Your task to perform on an android device: Go to CNN.com Image 0: 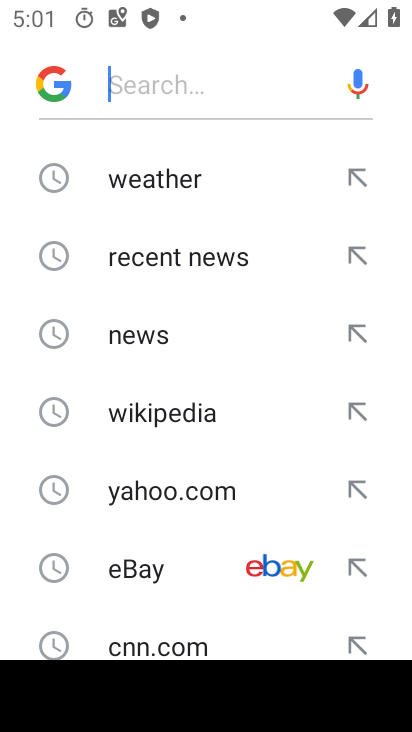
Step 0: press home button
Your task to perform on an android device: Go to CNN.com Image 1: 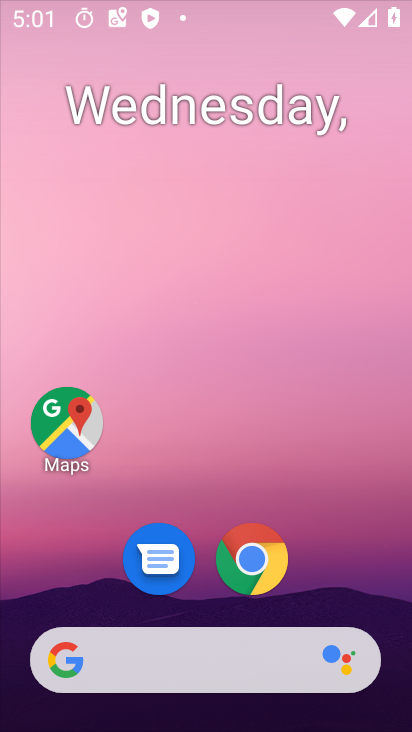
Step 1: click (263, 553)
Your task to perform on an android device: Go to CNN.com Image 2: 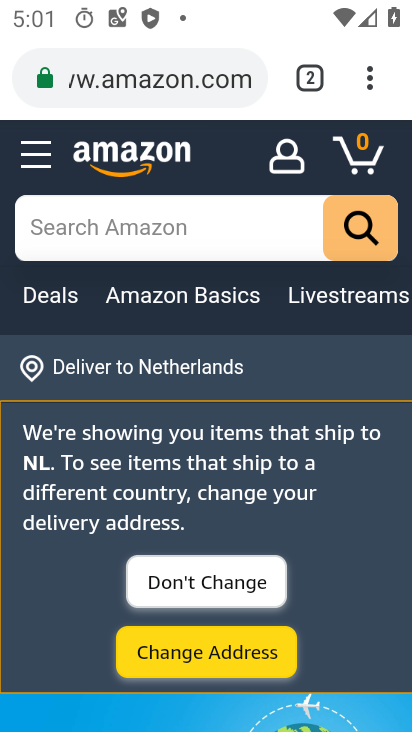
Step 2: click (309, 80)
Your task to perform on an android device: Go to CNN.com Image 3: 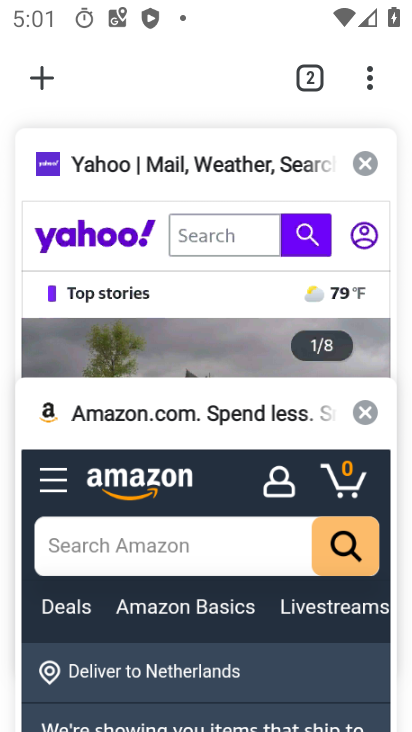
Step 3: click (48, 77)
Your task to perform on an android device: Go to CNN.com Image 4: 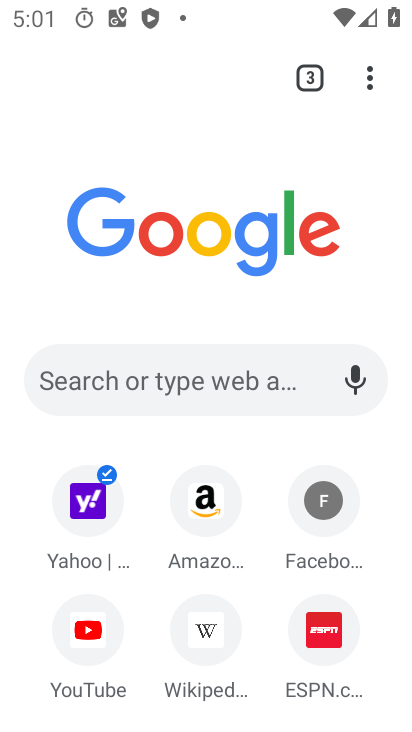
Step 4: click (206, 374)
Your task to perform on an android device: Go to CNN.com Image 5: 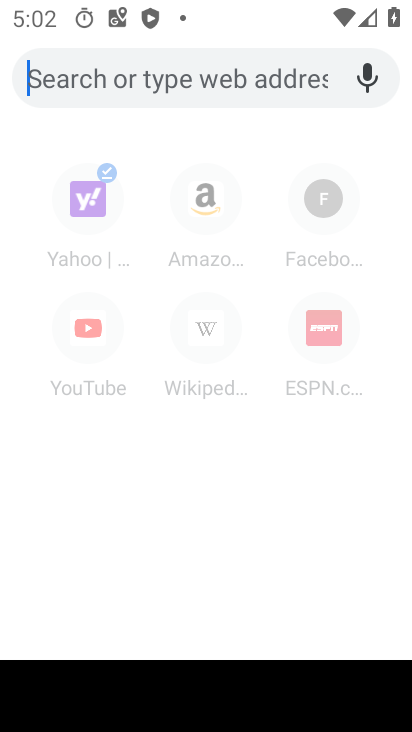
Step 5: type "CNN.com"
Your task to perform on an android device: Go to CNN.com Image 6: 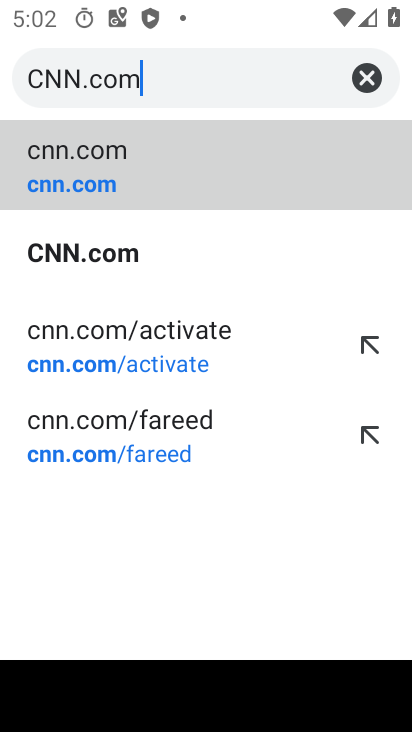
Step 6: click (201, 164)
Your task to perform on an android device: Go to CNN.com Image 7: 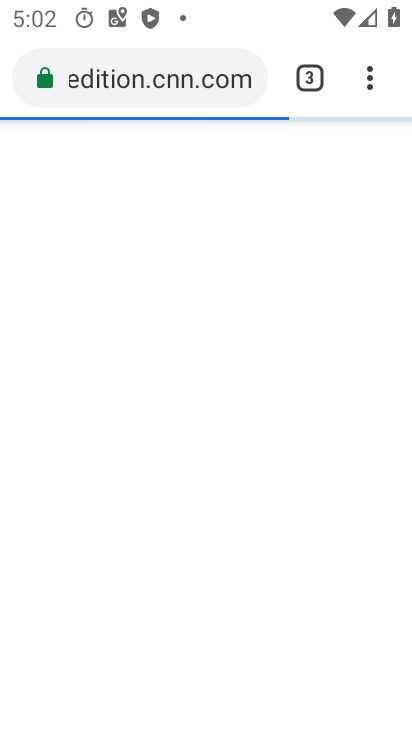
Step 7: task complete